Your task to perform on an android device: Open Yahoo.com Image 0: 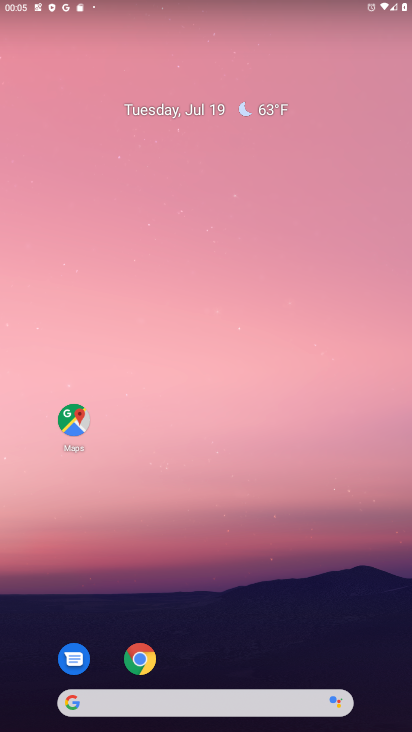
Step 0: press home button
Your task to perform on an android device: Open Yahoo.com Image 1: 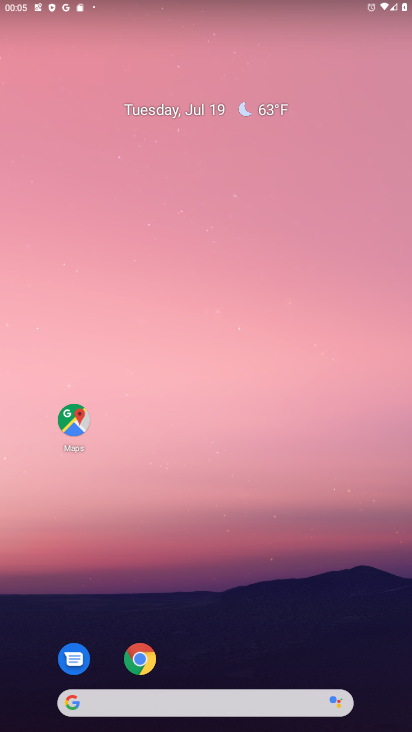
Step 1: drag from (320, 661) to (318, 158)
Your task to perform on an android device: Open Yahoo.com Image 2: 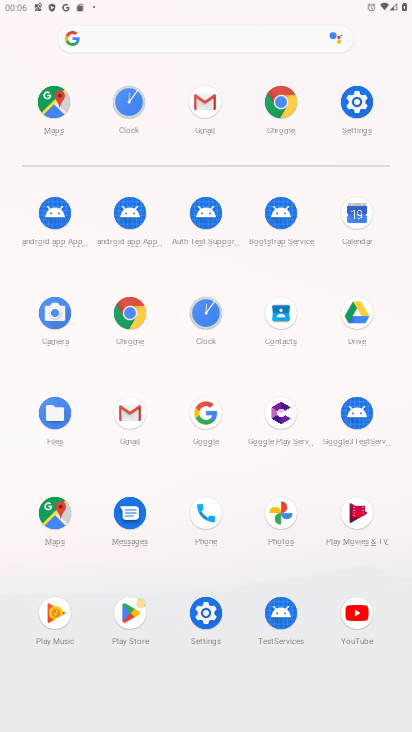
Step 2: click (123, 320)
Your task to perform on an android device: Open Yahoo.com Image 3: 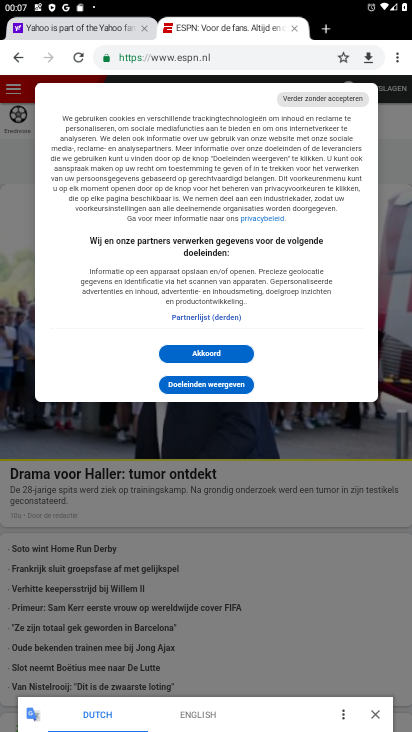
Step 3: click (158, 57)
Your task to perform on an android device: Open Yahoo.com Image 4: 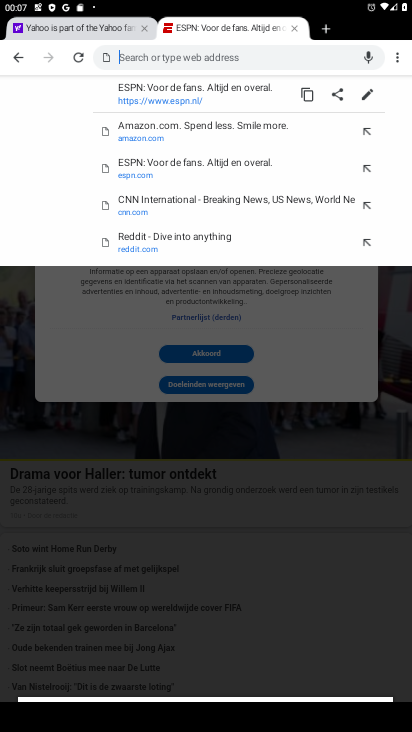
Step 4: type "Yahoo.com"
Your task to perform on an android device: Open Yahoo.com Image 5: 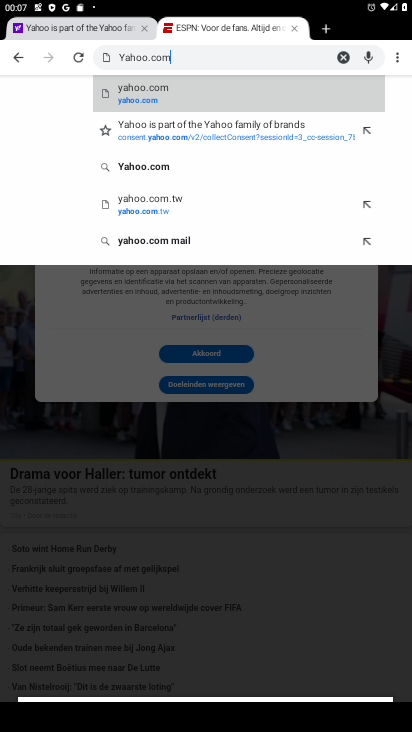
Step 5: click (225, 89)
Your task to perform on an android device: Open Yahoo.com Image 6: 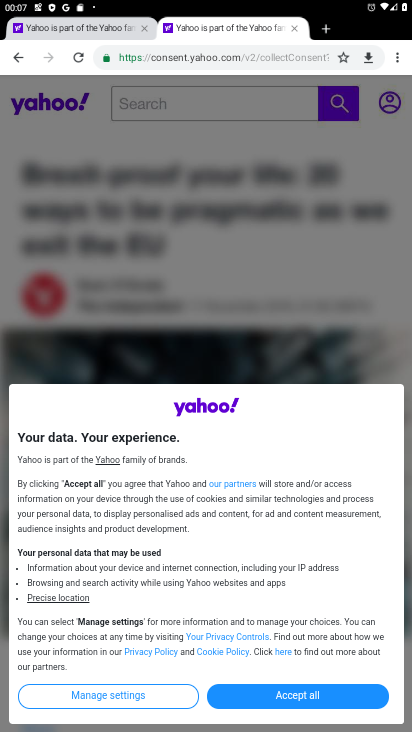
Step 6: task complete